Your task to perform on an android device: toggle data saver in the chrome app Image 0: 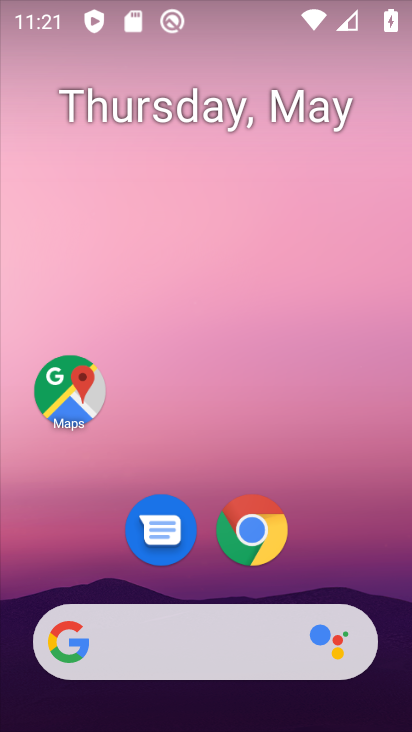
Step 0: click (250, 532)
Your task to perform on an android device: toggle data saver in the chrome app Image 1: 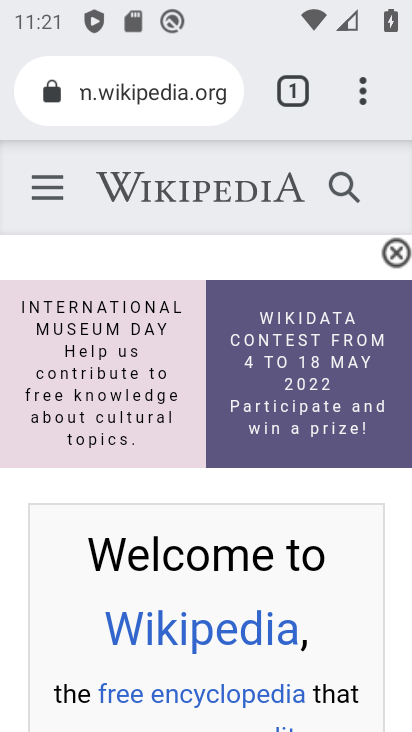
Step 1: click (363, 93)
Your task to perform on an android device: toggle data saver in the chrome app Image 2: 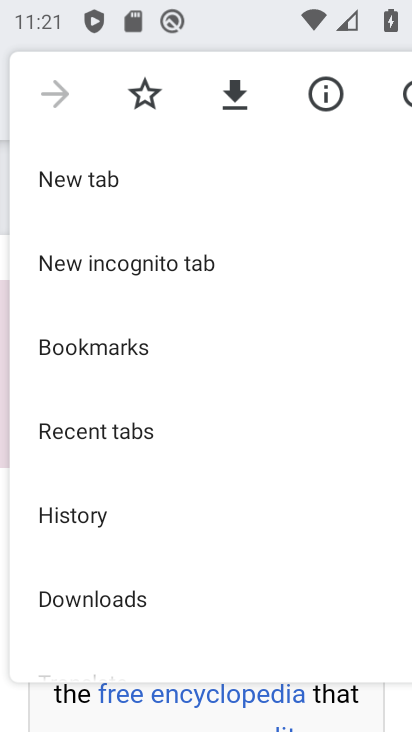
Step 2: drag from (120, 574) to (137, 265)
Your task to perform on an android device: toggle data saver in the chrome app Image 3: 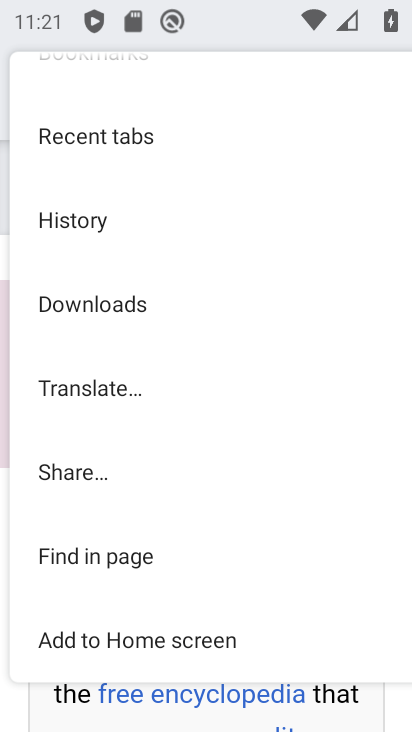
Step 3: drag from (137, 595) to (120, 325)
Your task to perform on an android device: toggle data saver in the chrome app Image 4: 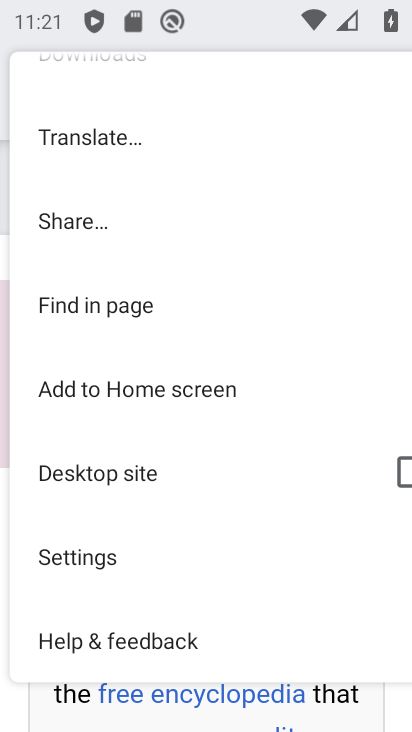
Step 4: click (95, 558)
Your task to perform on an android device: toggle data saver in the chrome app Image 5: 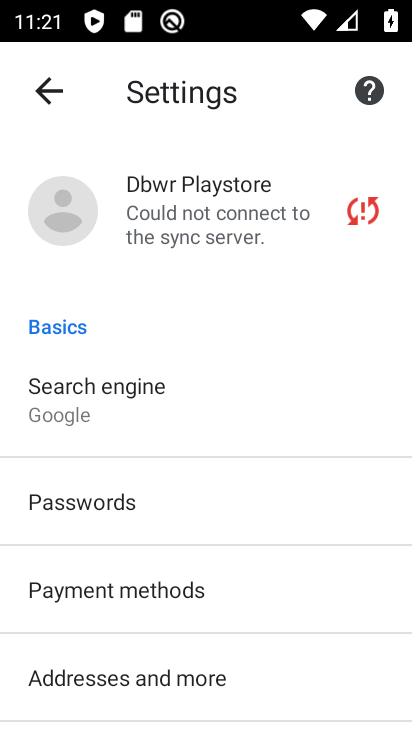
Step 5: drag from (89, 598) to (96, 295)
Your task to perform on an android device: toggle data saver in the chrome app Image 6: 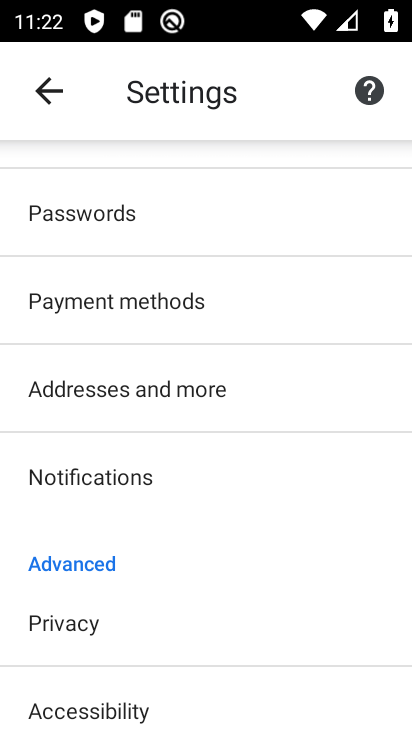
Step 6: drag from (148, 644) to (133, 406)
Your task to perform on an android device: toggle data saver in the chrome app Image 7: 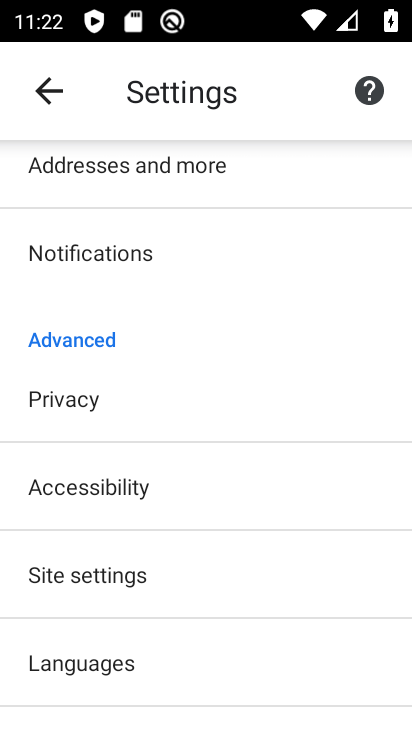
Step 7: drag from (216, 658) to (274, 320)
Your task to perform on an android device: toggle data saver in the chrome app Image 8: 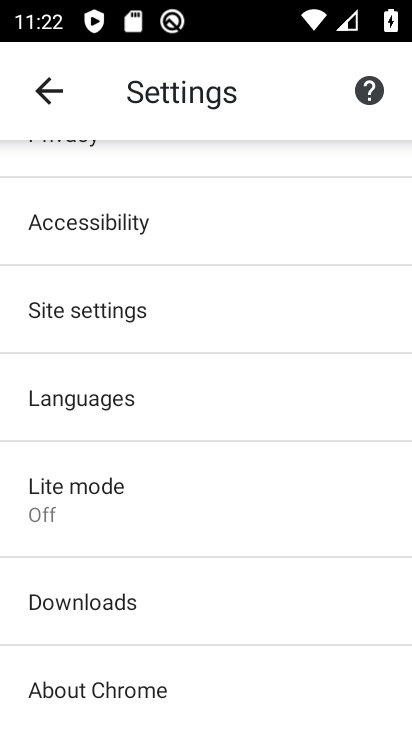
Step 8: click (111, 485)
Your task to perform on an android device: toggle data saver in the chrome app Image 9: 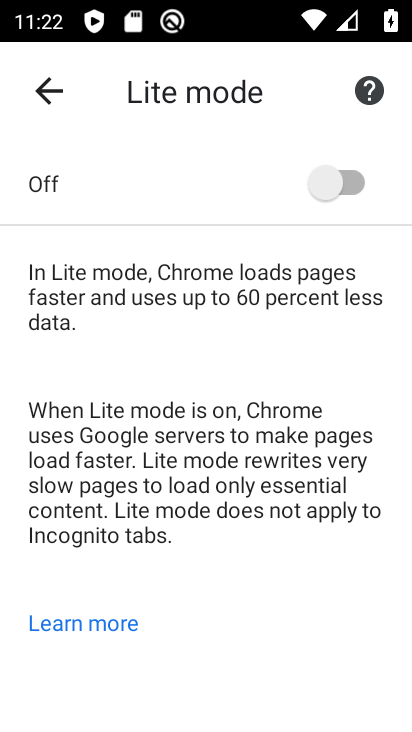
Step 9: click (355, 184)
Your task to perform on an android device: toggle data saver in the chrome app Image 10: 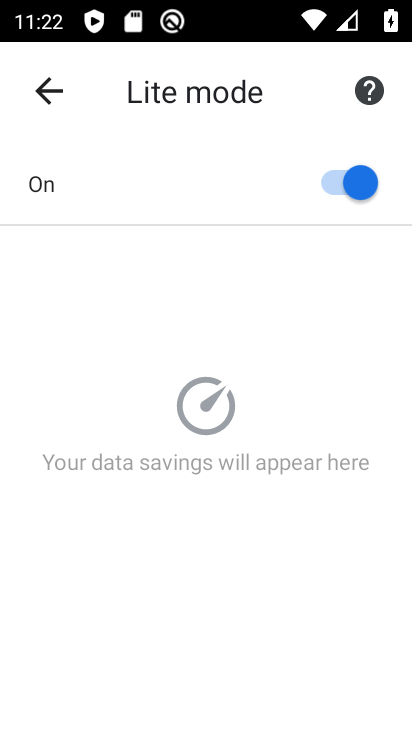
Step 10: task complete